Your task to perform on an android device: Open wifi settings Image 0: 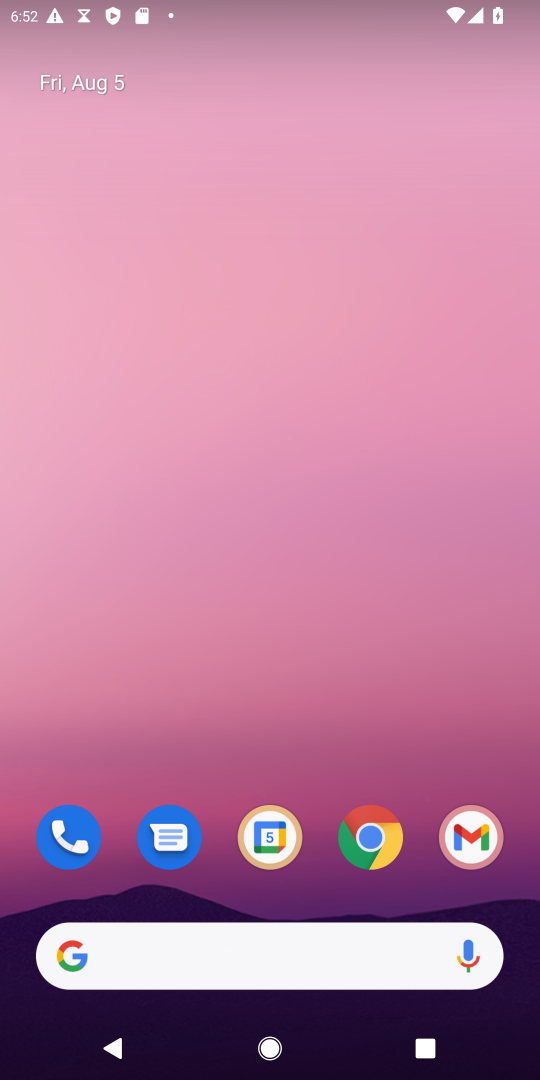
Step 0: press home button
Your task to perform on an android device: Open wifi settings Image 1: 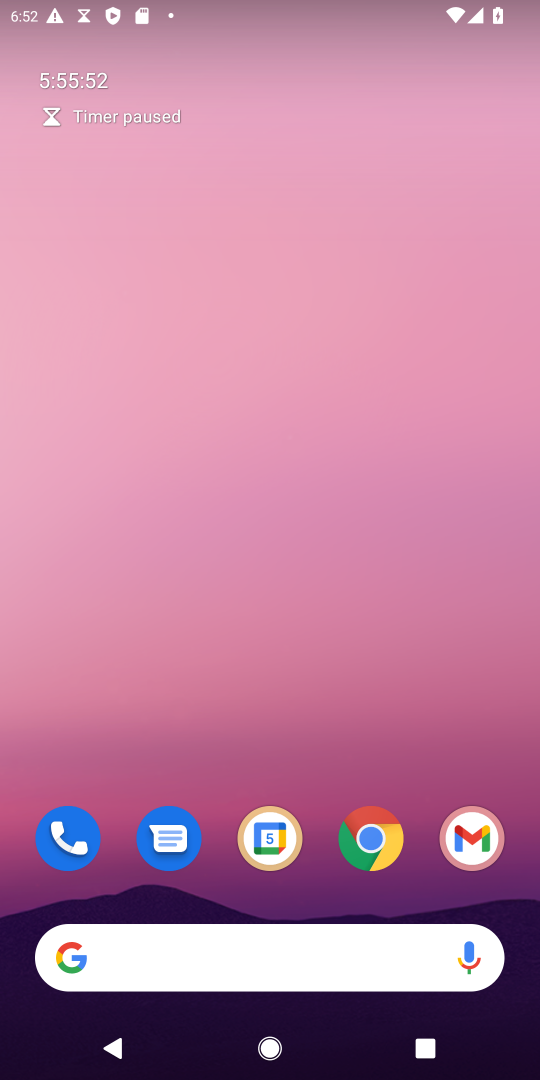
Step 1: drag from (320, 631) to (293, 30)
Your task to perform on an android device: Open wifi settings Image 2: 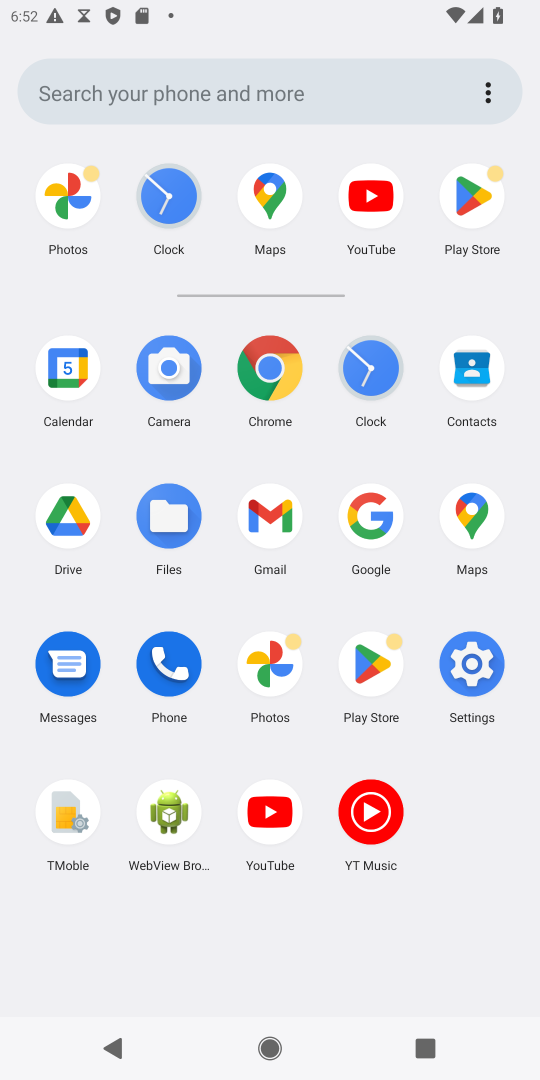
Step 2: click (470, 665)
Your task to perform on an android device: Open wifi settings Image 3: 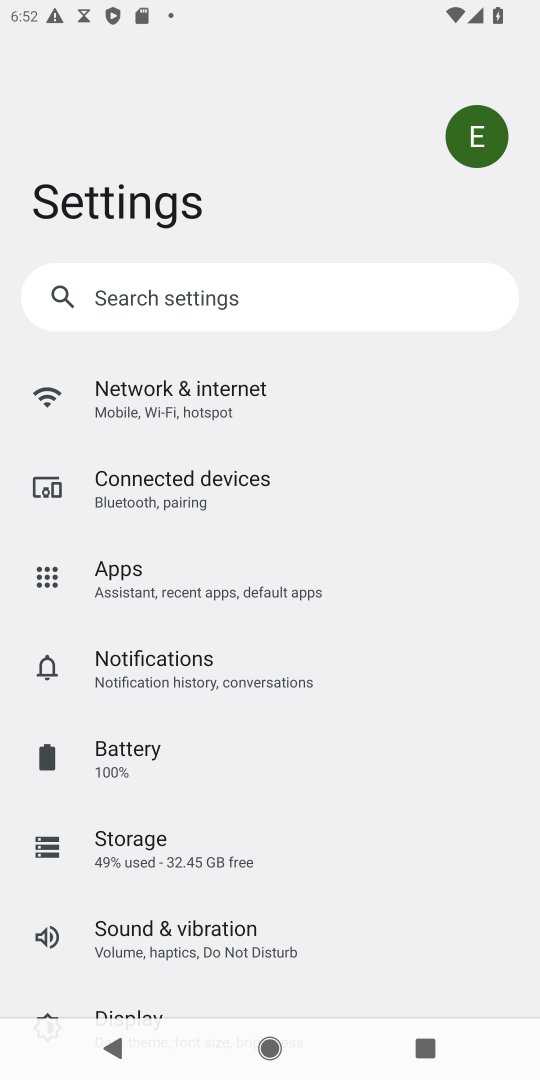
Step 3: click (179, 415)
Your task to perform on an android device: Open wifi settings Image 4: 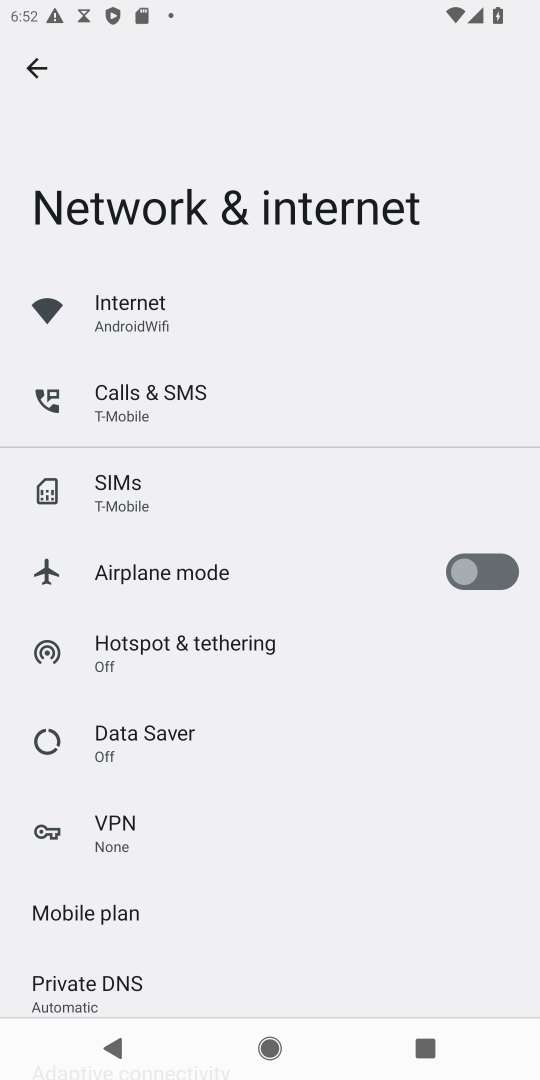
Step 4: click (137, 310)
Your task to perform on an android device: Open wifi settings Image 5: 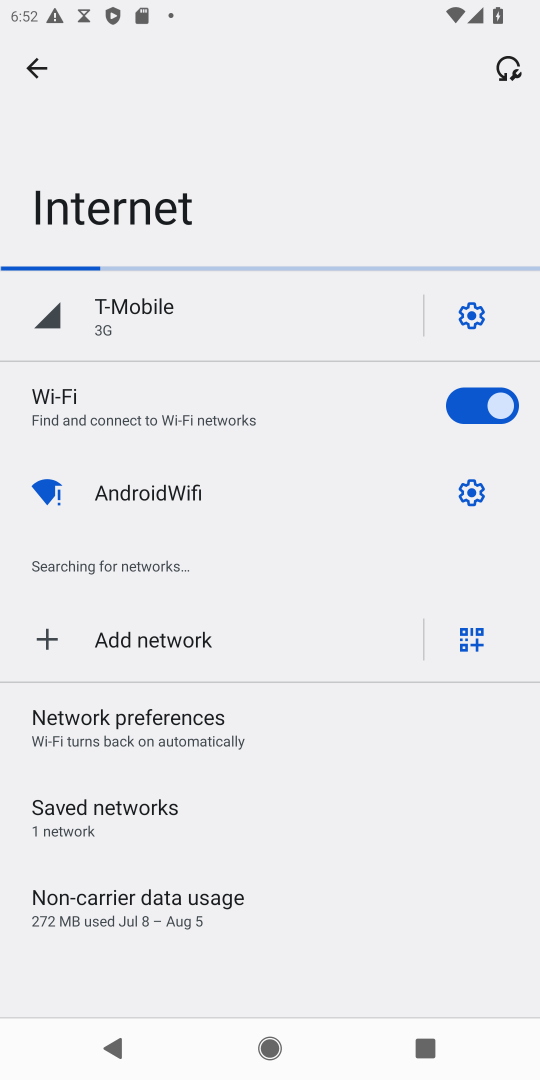
Step 5: click (152, 496)
Your task to perform on an android device: Open wifi settings Image 6: 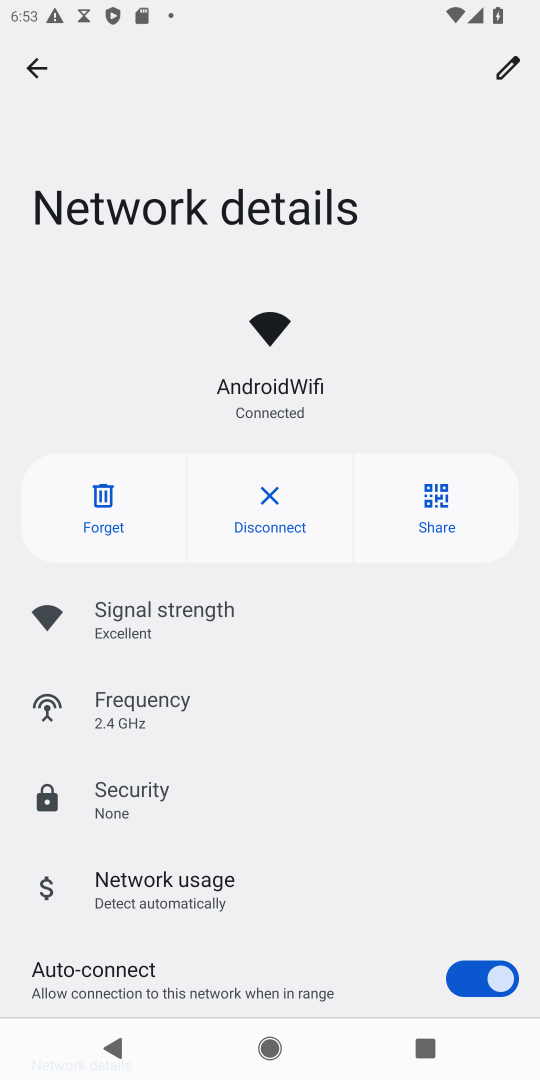
Step 6: task complete